Your task to perform on an android device: Open calendar and show me the first week of next month Image 0: 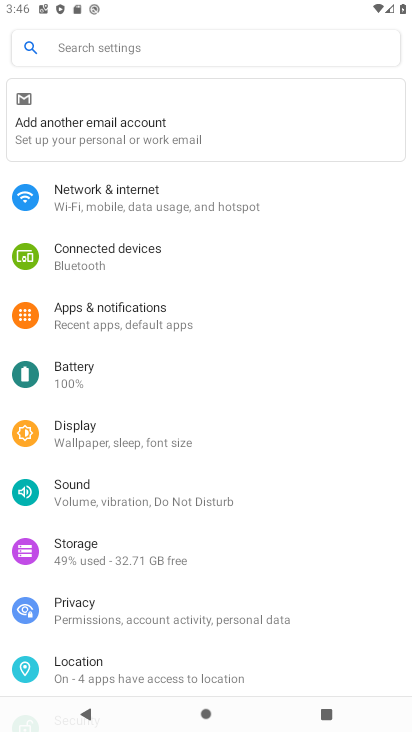
Step 0: press home button
Your task to perform on an android device: Open calendar and show me the first week of next month Image 1: 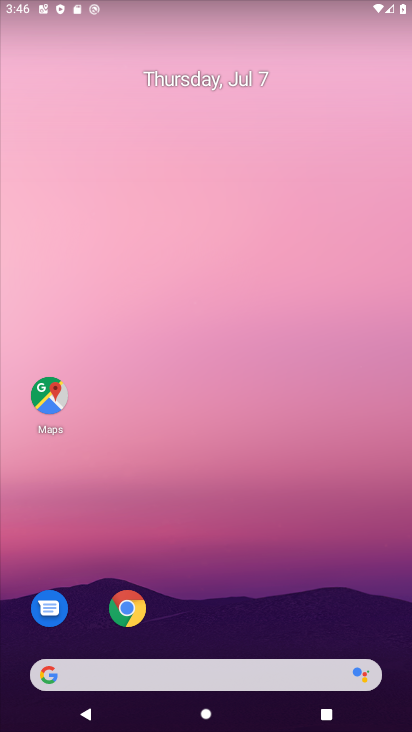
Step 1: drag from (307, 588) to (210, 41)
Your task to perform on an android device: Open calendar and show me the first week of next month Image 2: 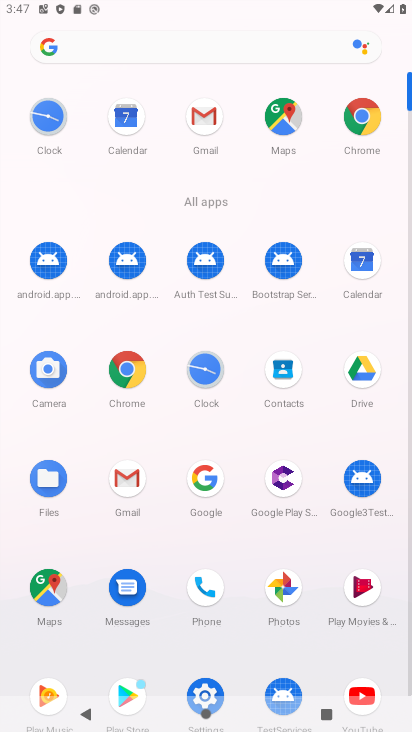
Step 2: click (126, 117)
Your task to perform on an android device: Open calendar and show me the first week of next month Image 3: 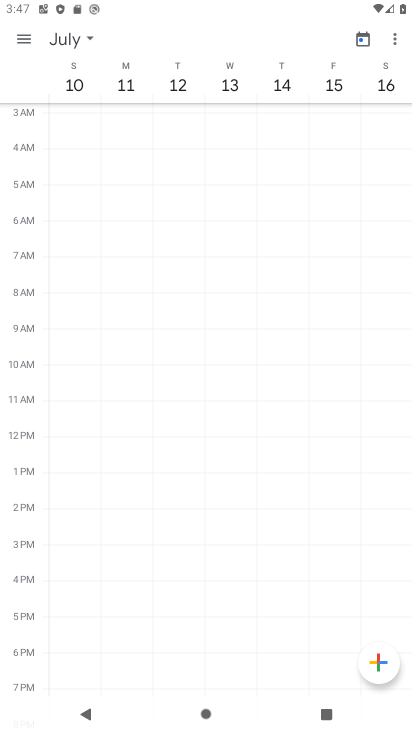
Step 3: click (87, 38)
Your task to perform on an android device: Open calendar and show me the first week of next month Image 4: 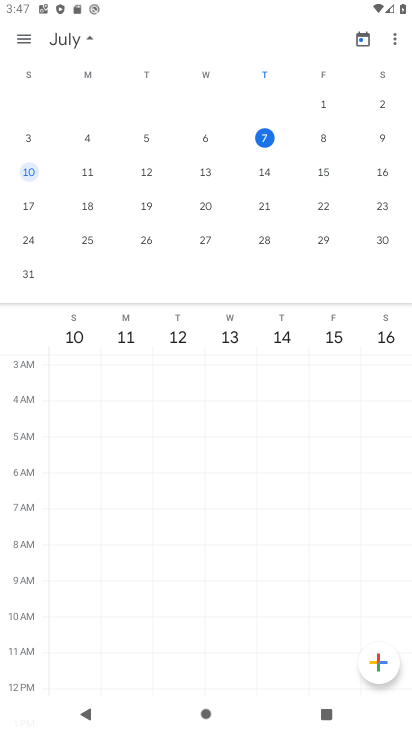
Step 4: drag from (357, 203) to (30, 219)
Your task to perform on an android device: Open calendar and show me the first week of next month Image 5: 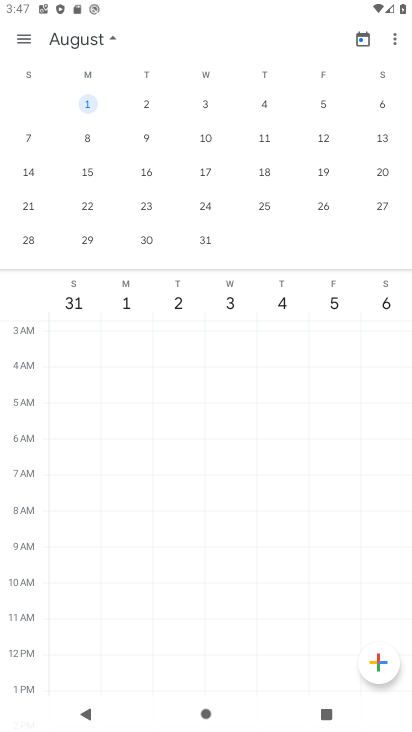
Step 5: click (203, 102)
Your task to perform on an android device: Open calendar and show me the first week of next month Image 6: 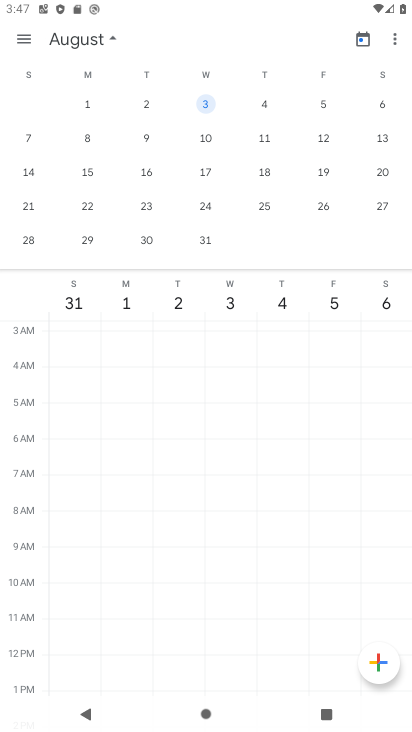
Step 6: click (102, 38)
Your task to perform on an android device: Open calendar and show me the first week of next month Image 7: 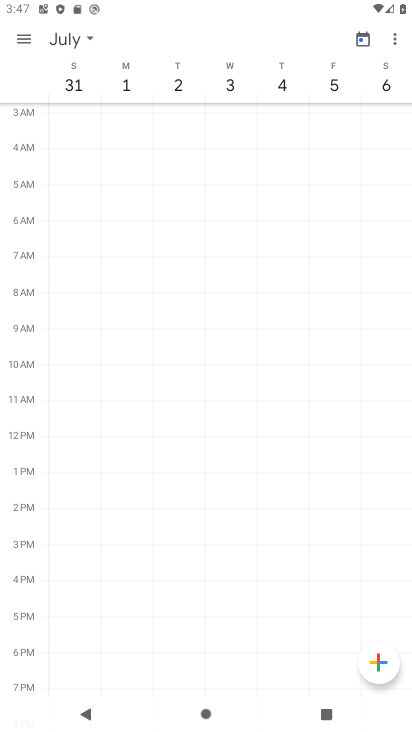
Step 7: task complete